Your task to perform on an android device: toggle priority inbox in the gmail app Image 0: 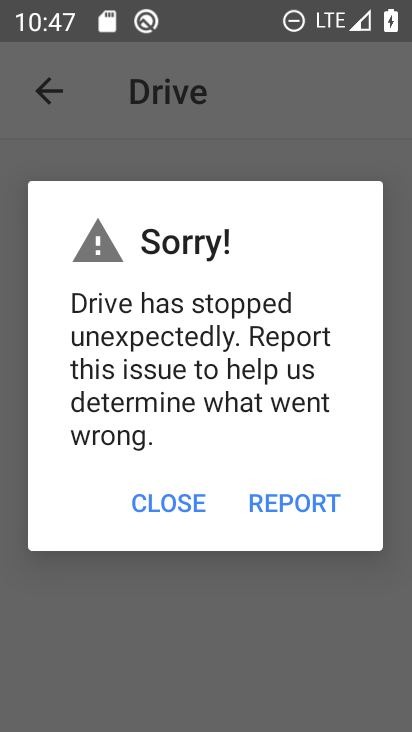
Step 0: press home button
Your task to perform on an android device: toggle priority inbox in the gmail app Image 1: 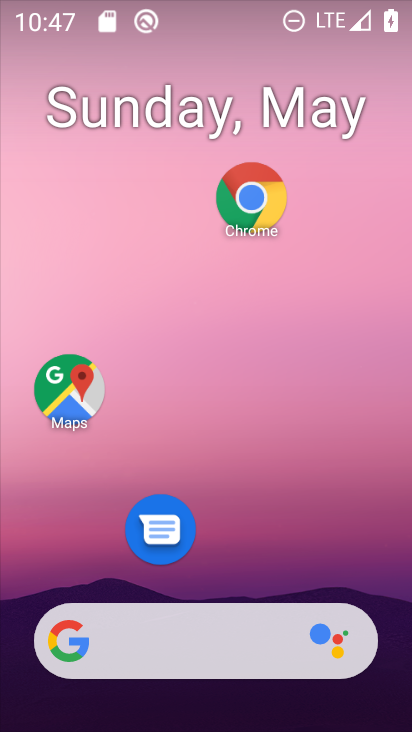
Step 1: drag from (249, 553) to (259, 138)
Your task to perform on an android device: toggle priority inbox in the gmail app Image 2: 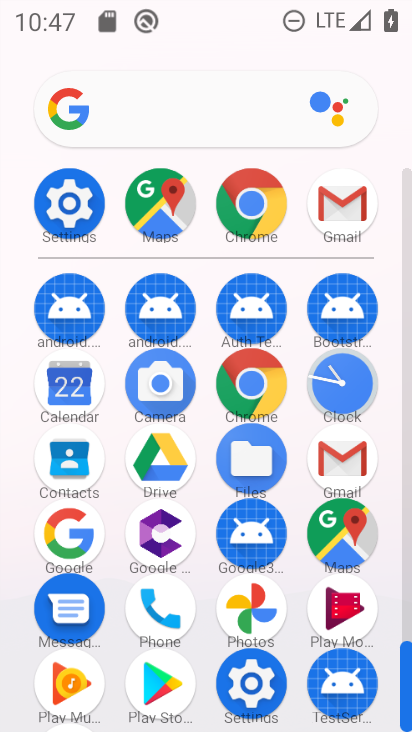
Step 2: click (332, 464)
Your task to perform on an android device: toggle priority inbox in the gmail app Image 3: 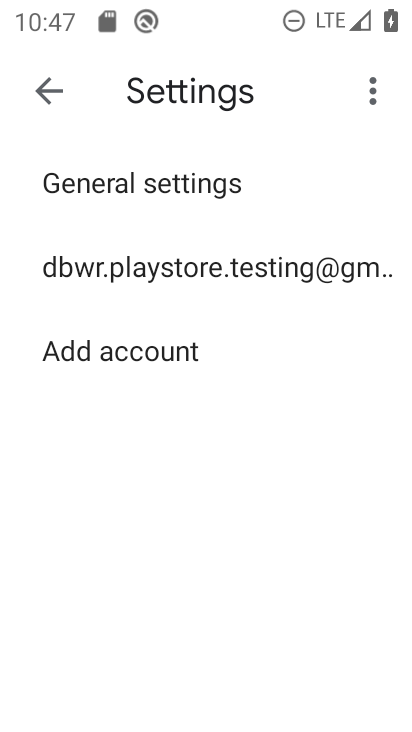
Step 3: click (102, 267)
Your task to perform on an android device: toggle priority inbox in the gmail app Image 4: 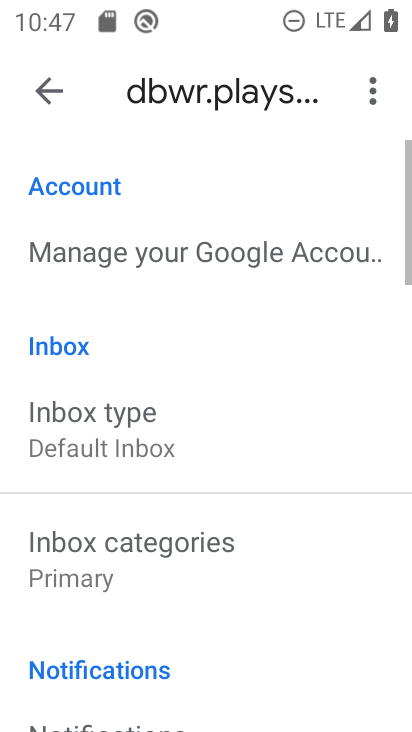
Step 4: click (172, 438)
Your task to perform on an android device: toggle priority inbox in the gmail app Image 5: 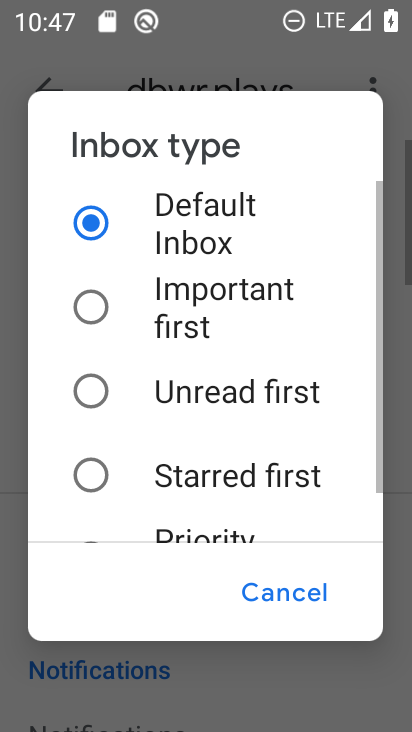
Step 5: drag from (229, 492) to (262, 245)
Your task to perform on an android device: toggle priority inbox in the gmail app Image 6: 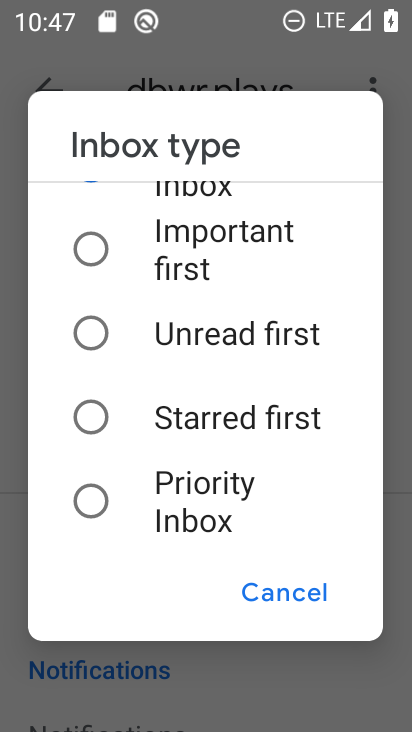
Step 6: click (182, 487)
Your task to perform on an android device: toggle priority inbox in the gmail app Image 7: 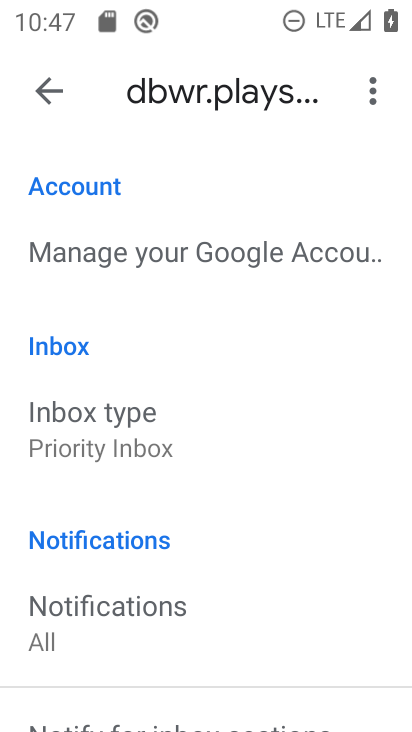
Step 7: task complete